Your task to perform on an android device: turn off airplane mode Image 0: 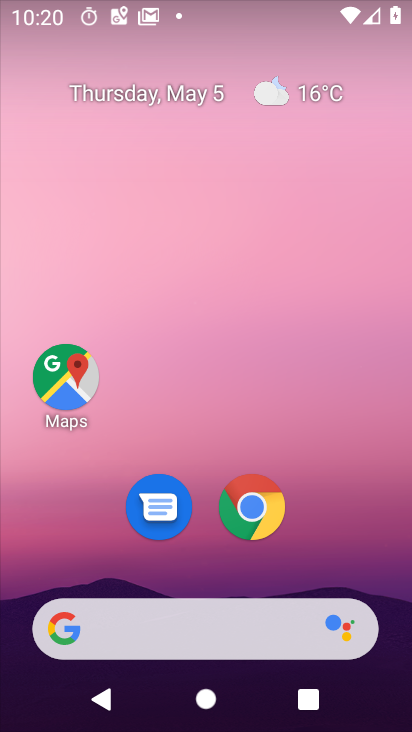
Step 0: drag from (184, 571) to (203, 167)
Your task to perform on an android device: turn off airplane mode Image 1: 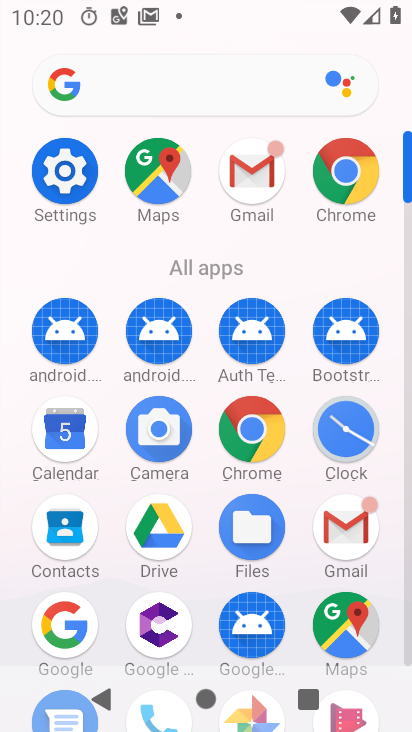
Step 1: drag from (202, 597) to (245, 273)
Your task to perform on an android device: turn off airplane mode Image 2: 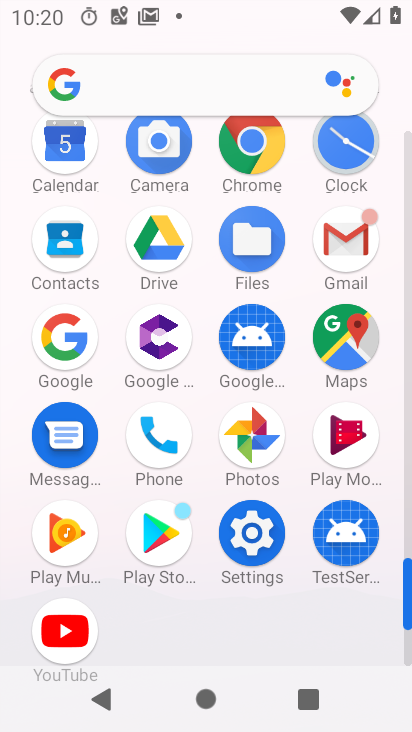
Step 2: click (244, 525)
Your task to perform on an android device: turn off airplane mode Image 3: 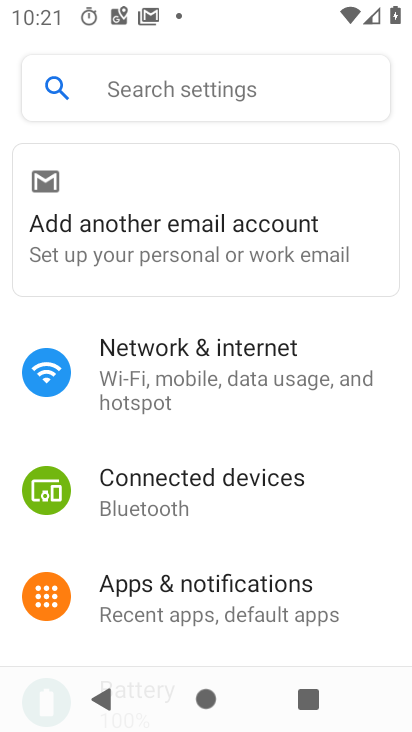
Step 3: click (242, 371)
Your task to perform on an android device: turn off airplane mode Image 4: 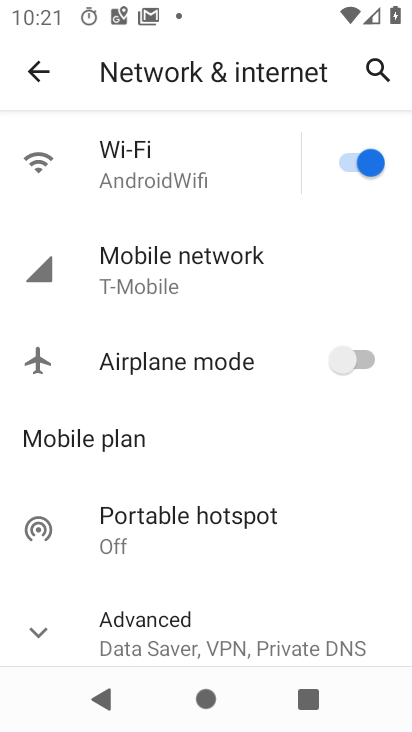
Step 4: click (353, 362)
Your task to perform on an android device: turn off airplane mode Image 5: 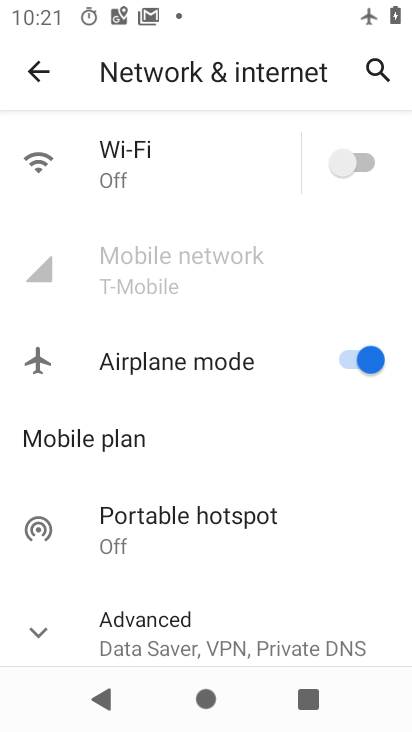
Step 5: task complete